Your task to perform on an android device: clear all cookies in the chrome app Image 0: 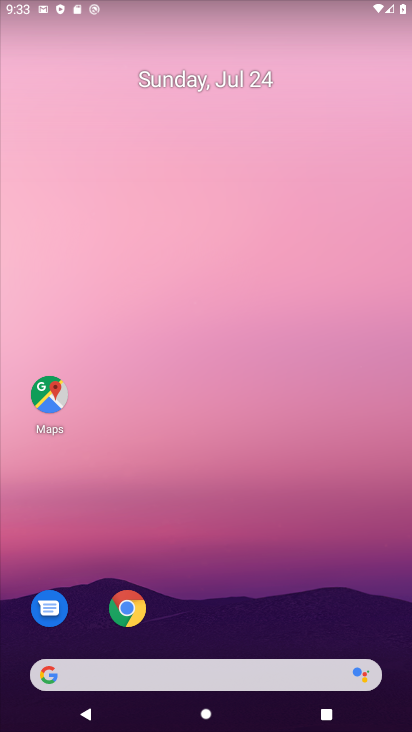
Step 0: drag from (215, 642) to (197, 85)
Your task to perform on an android device: clear all cookies in the chrome app Image 1: 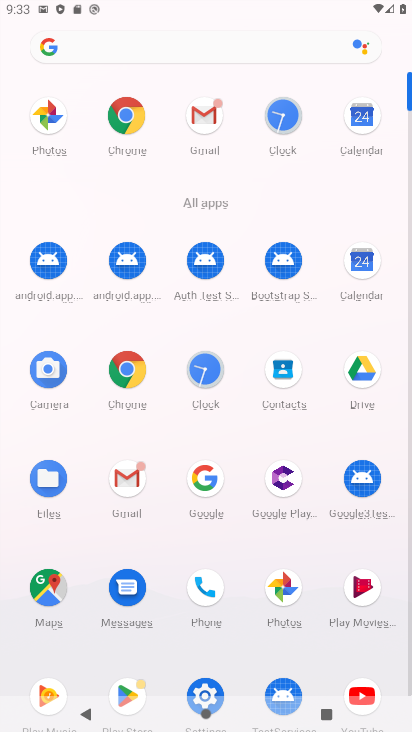
Step 1: click (122, 109)
Your task to perform on an android device: clear all cookies in the chrome app Image 2: 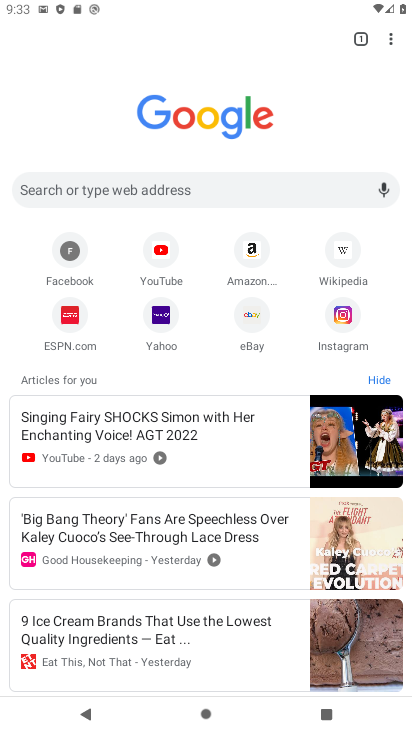
Step 2: click (390, 35)
Your task to perform on an android device: clear all cookies in the chrome app Image 3: 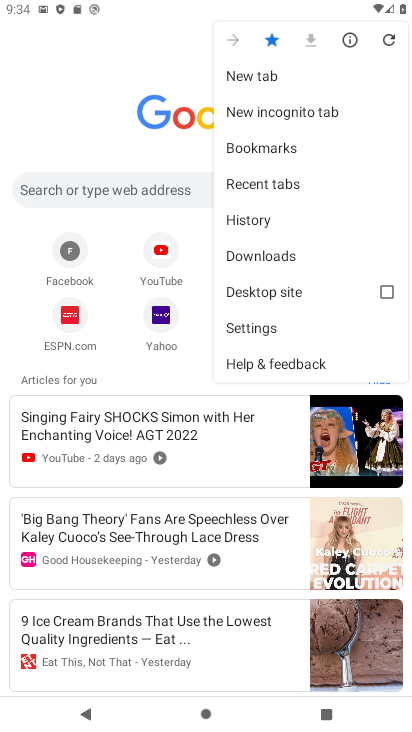
Step 3: click (275, 214)
Your task to perform on an android device: clear all cookies in the chrome app Image 4: 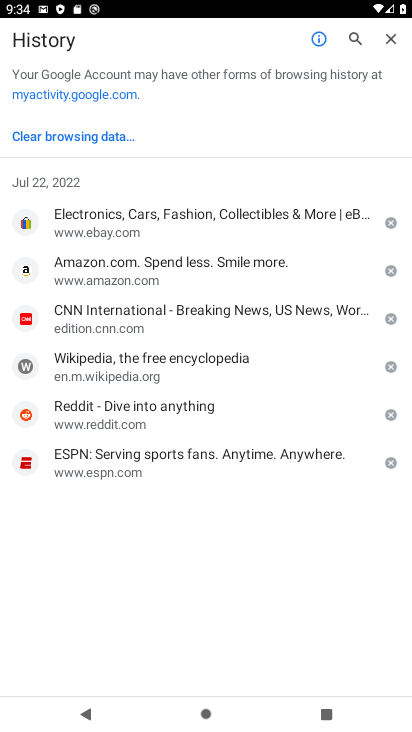
Step 4: click (100, 130)
Your task to perform on an android device: clear all cookies in the chrome app Image 5: 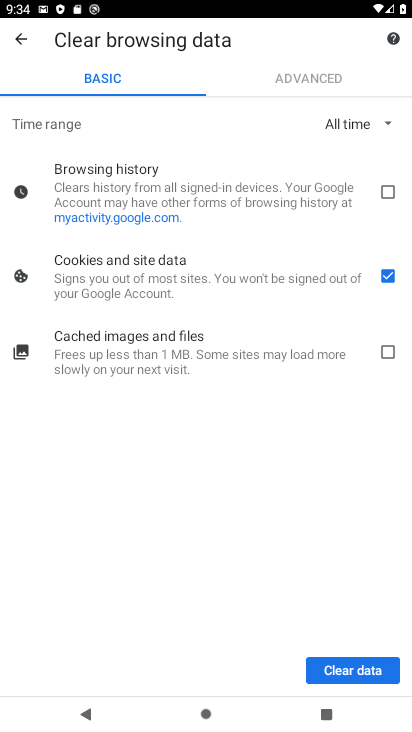
Step 5: click (387, 189)
Your task to perform on an android device: clear all cookies in the chrome app Image 6: 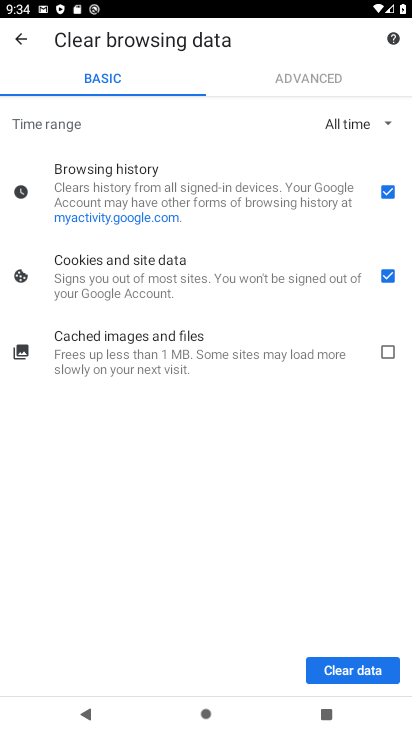
Step 6: click (386, 351)
Your task to perform on an android device: clear all cookies in the chrome app Image 7: 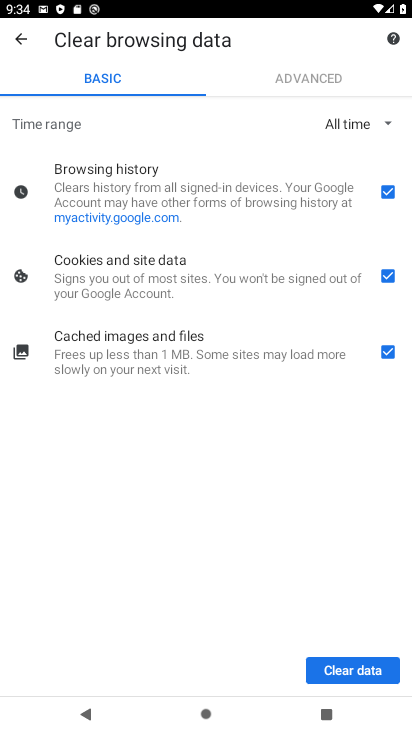
Step 7: click (362, 670)
Your task to perform on an android device: clear all cookies in the chrome app Image 8: 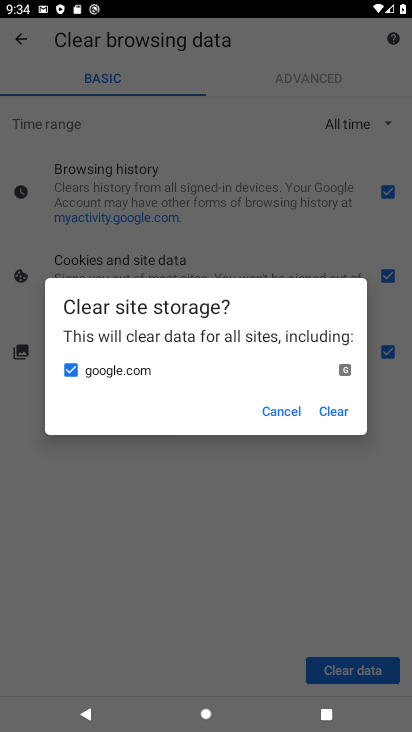
Step 8: click (331, 408)
Your task to perform on an android device: clear all cookies in the chrome app Image 9: 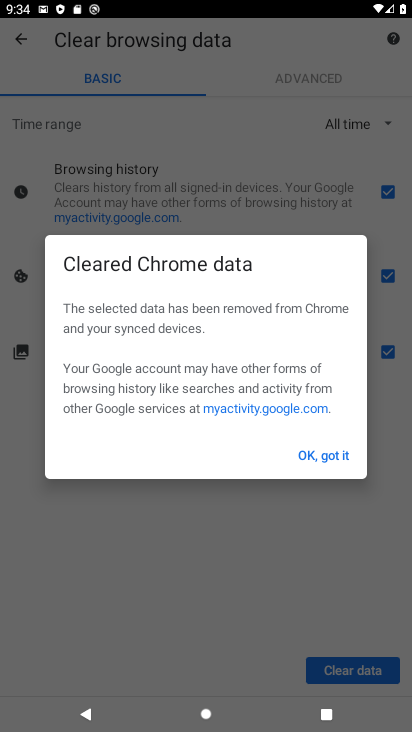
Step 9: click (311, 448)
Your task to perform on an android device: clear all cookies in the chrome app Image 10: 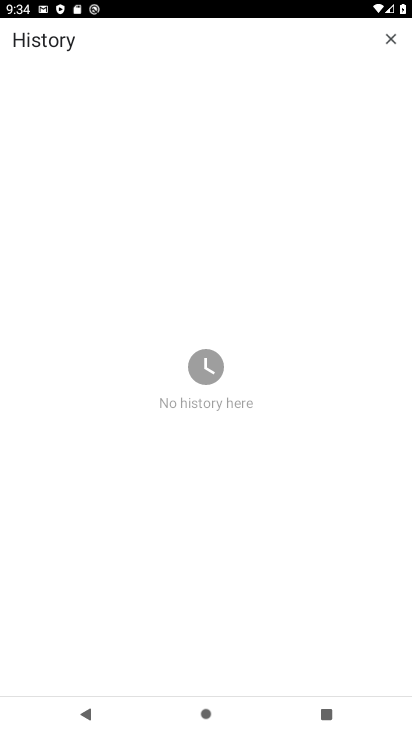
Step 10: task complete